Your task to perform on an android device: open a bookmark in the chrome app Image 0: 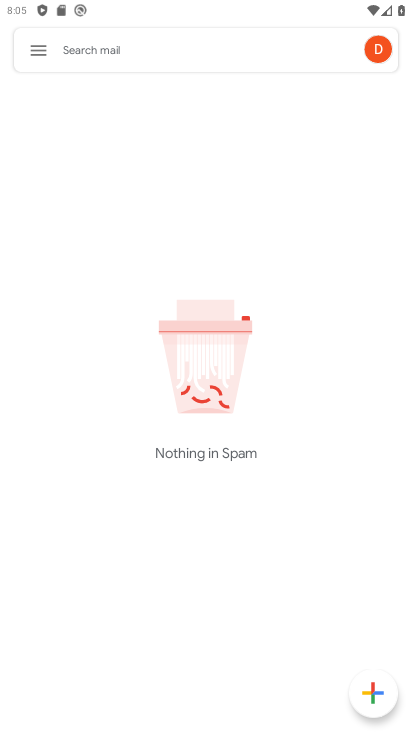
Step 0: press home button
Your task to perform on an android device: open a bookmark in the chrome app Image 1: 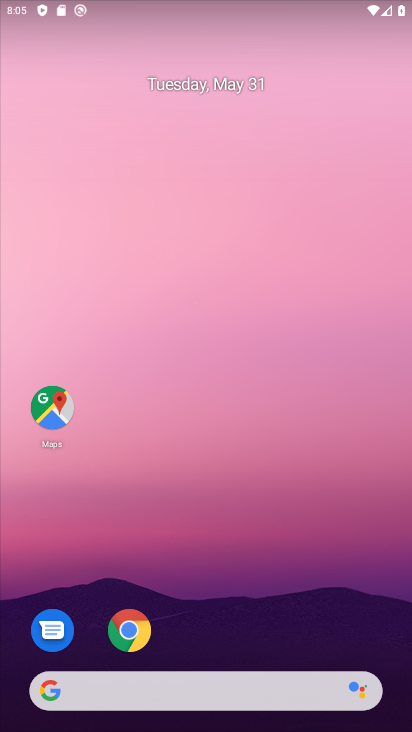
Step 1: click (135, 628)
Your task to perform on an android device: open a bookmark in the chrome app Image 2: 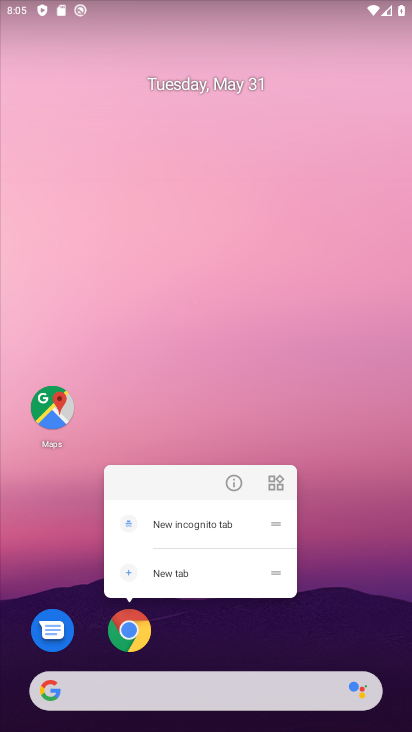
Step 2: click (127, 642)
Your task to perform on an android device: open a bookmark in the chrome app Image 3: 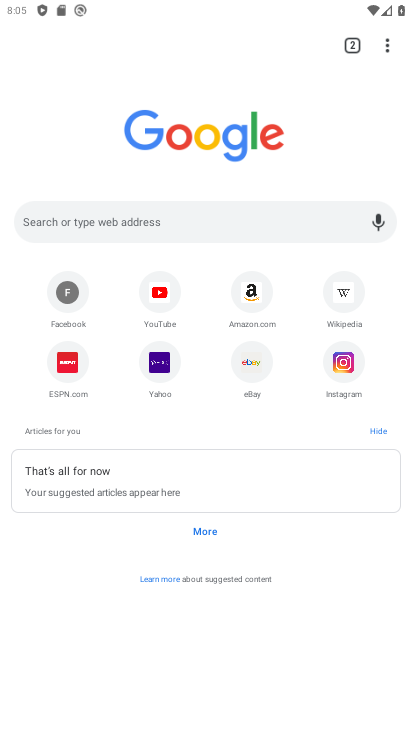
Step 3: click (385, 45)
Your task to perform on an android device: open a bookmark in the chrome app Image 4: 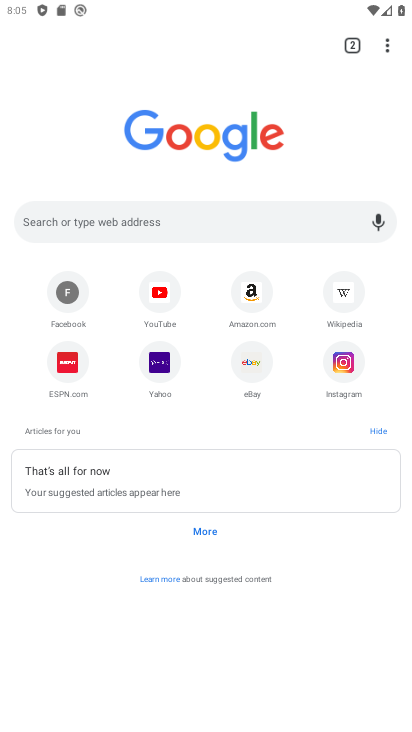
Step 4: task complete